Your task to perform on an android device: check battery use Image 0: 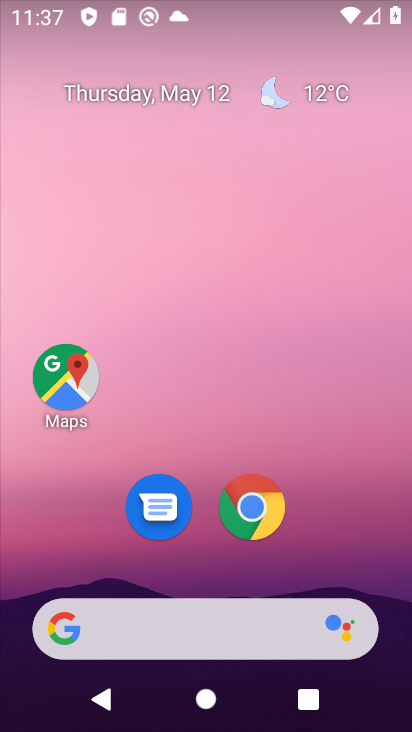
Step 0: drag from (195, 572) to (234, 125)
Your task to perform on an android device: check battery use Image 1: 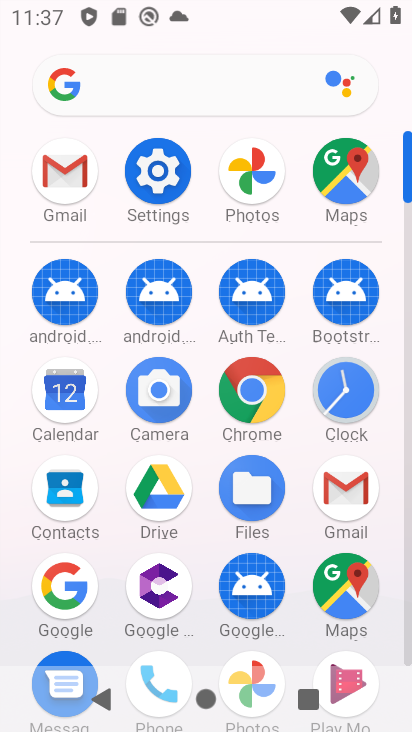
Step 1: click (164, 192)
Your task to perform on an android device: check battery use Image 2: 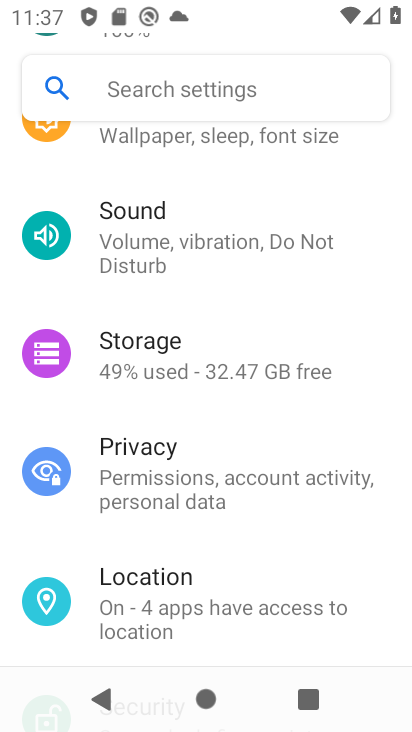
Step 2: drag from (188, 265) to (194, 544)
Your task to perform on an android device: check battery use Image 3: 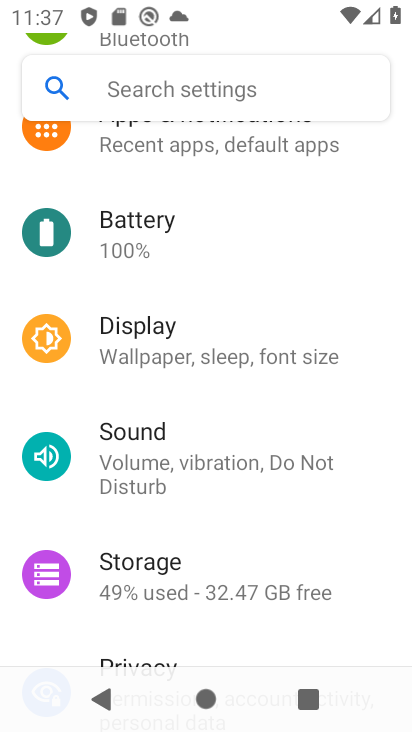
Step 3: click (127, 224)
Your task to perform on an android device: check battery use Image 4: 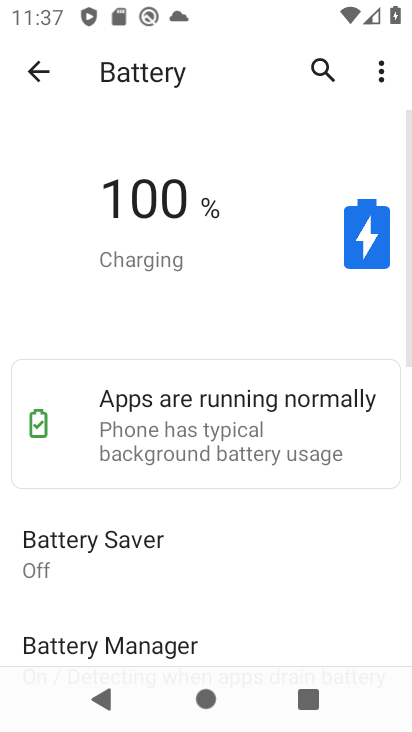
Step 4: click (382, 74)
Your task to perform on an android device: check battery use Image 5: 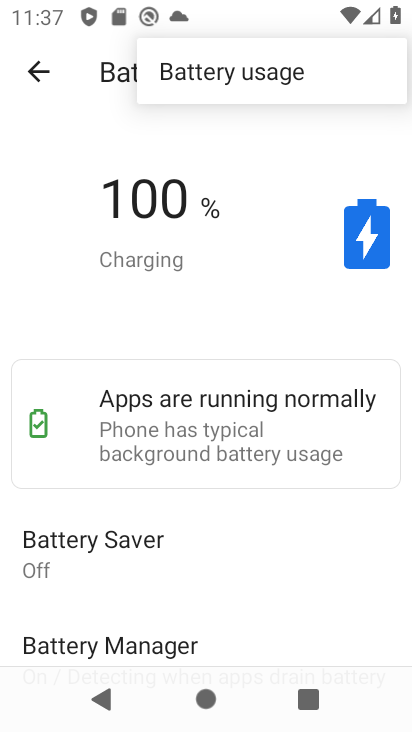
Step 5: click (271, 78)
Your task to perform on an android device: check battery use Image 6: 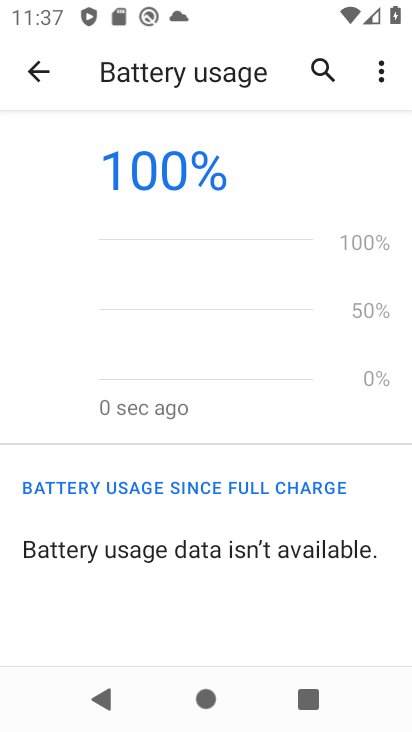
Step 6: task complete